Your task to perform on an android device: Open network settings Image 0: 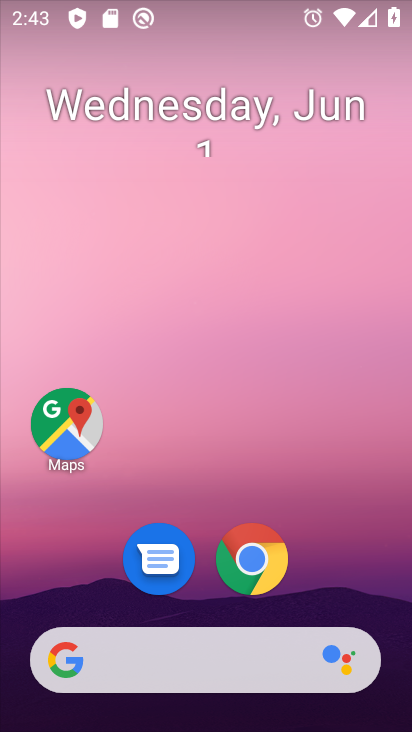
Step 0: drag from (345, 535) to (308, 3)
Your task to perform on an android device: Open network settings Image 1: 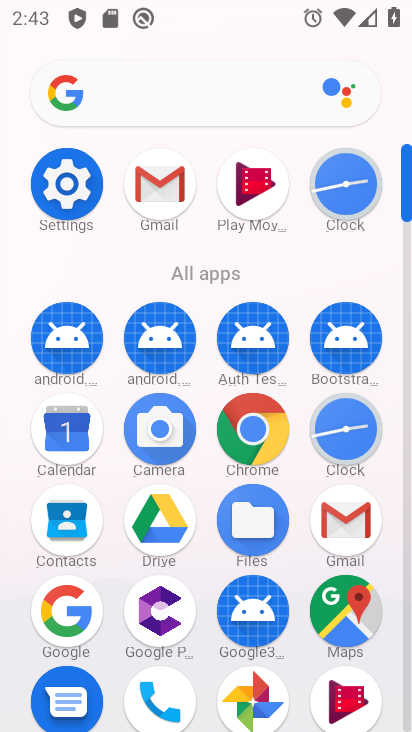
Step 1: click (62, 186)
Your task to perform on an android device: Open network settings Image 2: 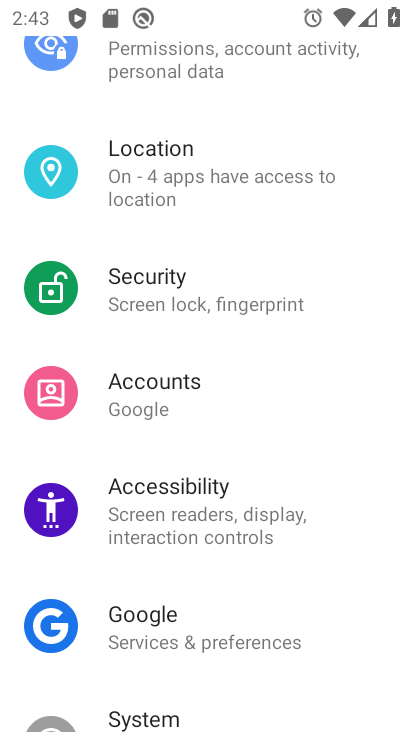
Step 2: drag from (200, 165) to (206, 578)
Your task to perform on an android device: Open network settings Image 3: 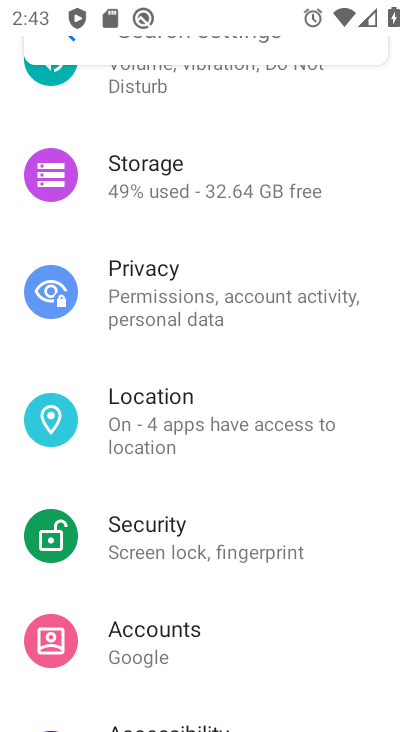
Step 3: drag from (246, 204) to (246, 574)
Your task to perform on an android device: Open network settings Image 4: 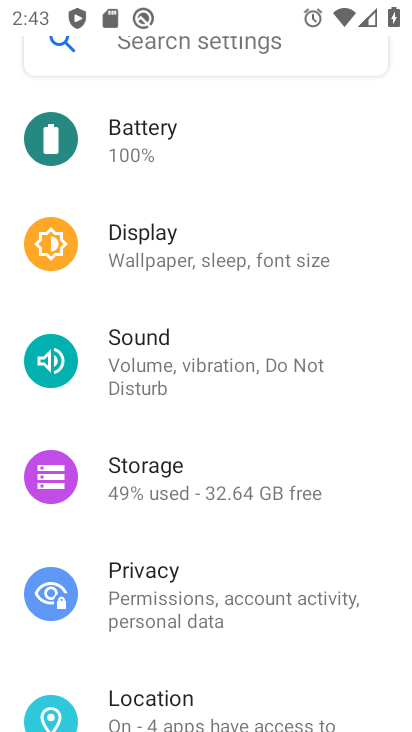
Step 4: drag from (187, 204) to (185, 586)
Your task to perform on an android device: Open network settings Image 5: 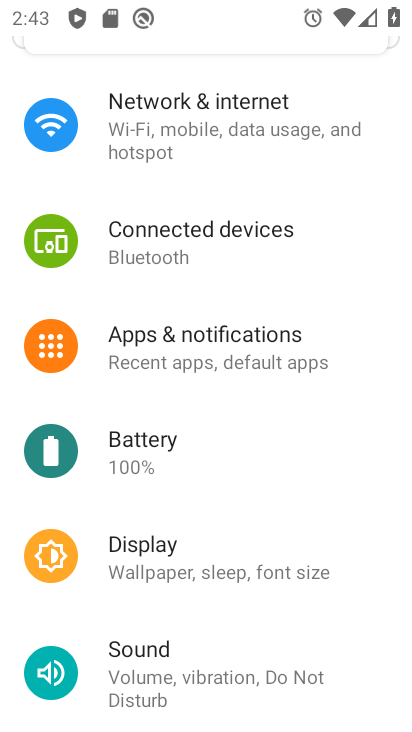
Step 5: click (184, 144)
Your task to perform on an android device: Open network settings Image 6: 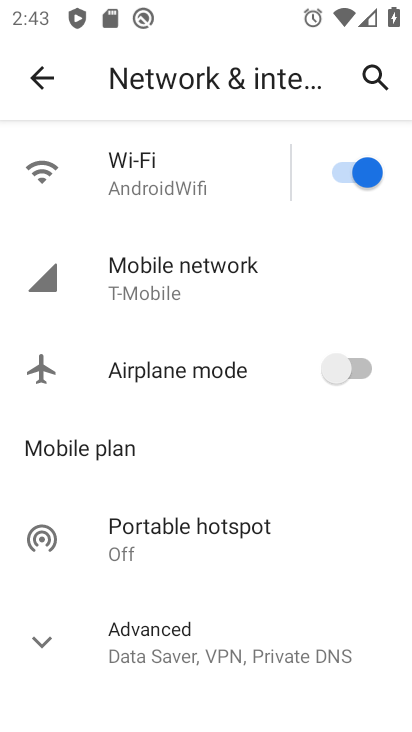
Step 6: click (139, 275)
Your task to perform on an android device: Open network settings Image 7: 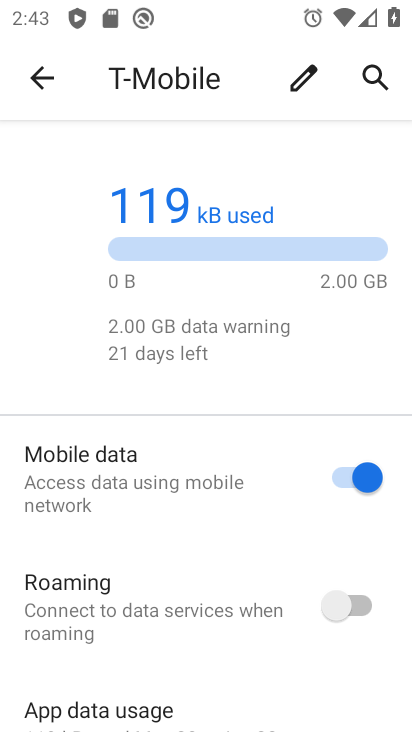
Step 7: task complete